Your task to perform on an android device: What's on my calendar today? Image 0: 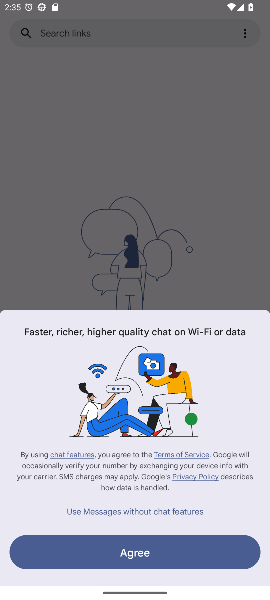
Step 0: press home button
Your task to perform on an android device: What's on my calendar today? Image 1: 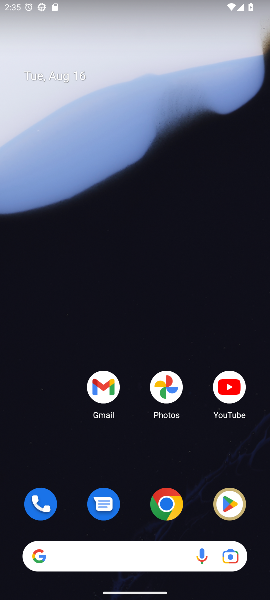
Step 1: drag from (136, 488) to (158, 96)
Your task to perform on an android device: What's on my calendar today? Image 2: 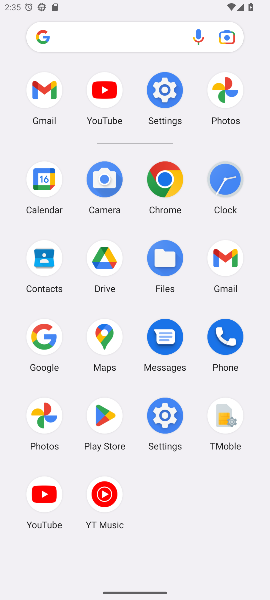
Step 2: click (42, 176)
Your task to perform on an android device: What's on my calendar today? Image 3: 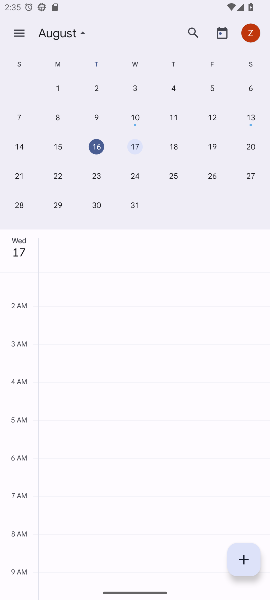
Step 3: click (95, 149)
Your task to perform on an android device: What's on my calendar today? Image 4: 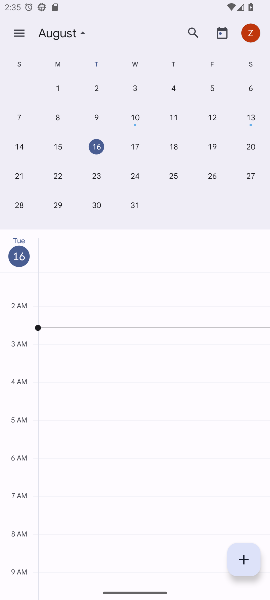
Step 4: task complete